Your task to perform on an android device: turn pop-ups off in chrome Image 0: 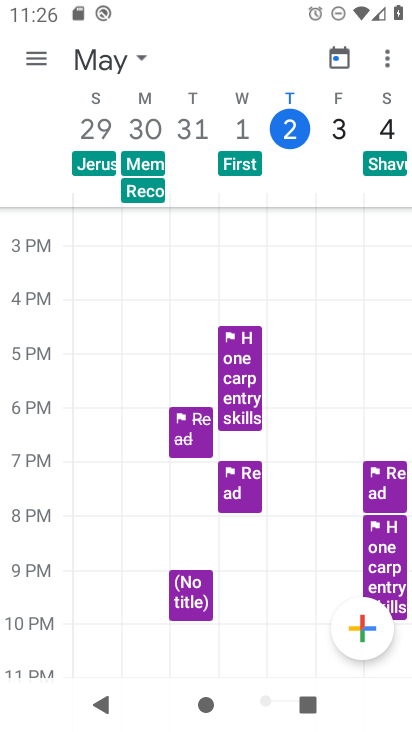
Step 0: press back button
Your task to perform on an android device: turn pop-ups off in chrome Image 1: 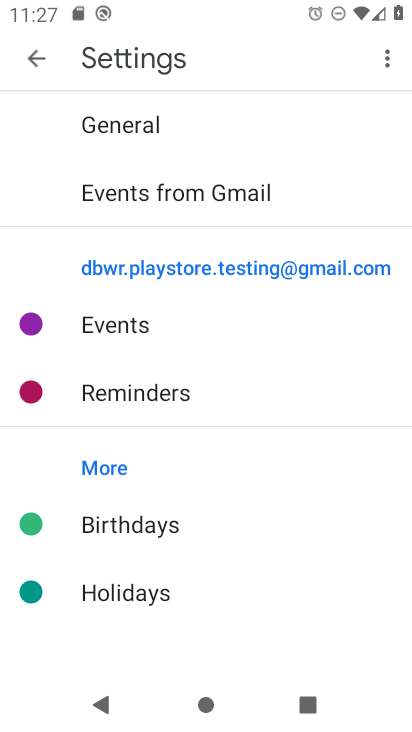
Step 1: press back button
Your task to perform on an android device: turn pop-ups off in chrome Image 2: 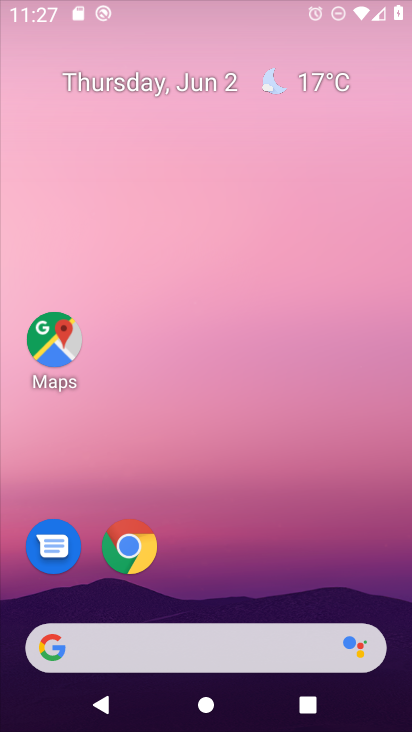
Step 2: press home button
Your task to perform on an android device: turn pop-ups off in chrome Image 3: 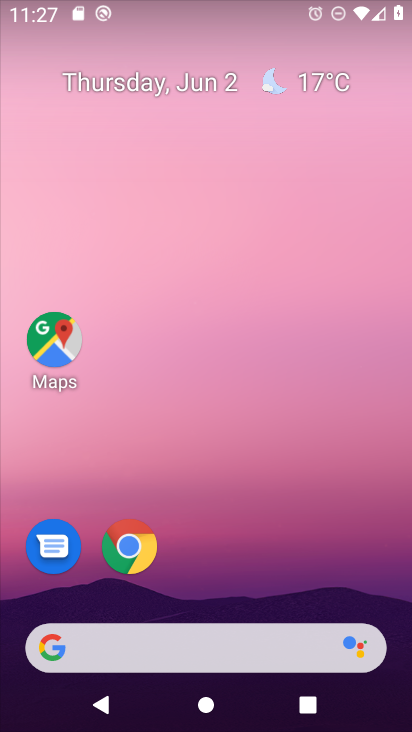
Step 3: drag from (281, 576) to (235, 48)
Your task to perform on an android device: turn pop-ups off in chrome Image 4: 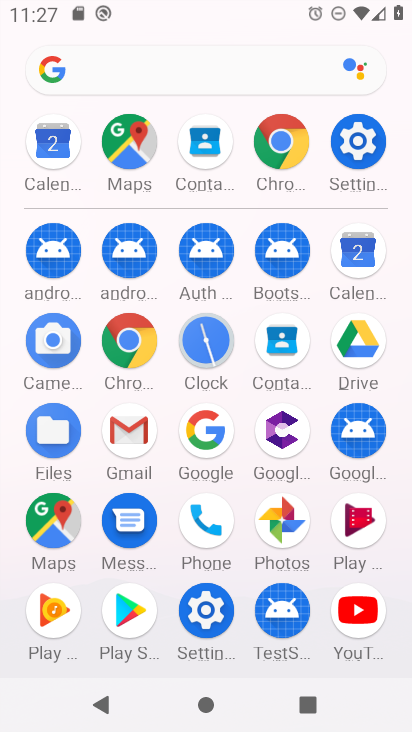
Step 4: click (130, 341)
Your task to perform on an android device: turn pop-ups off in chrome Image 5: 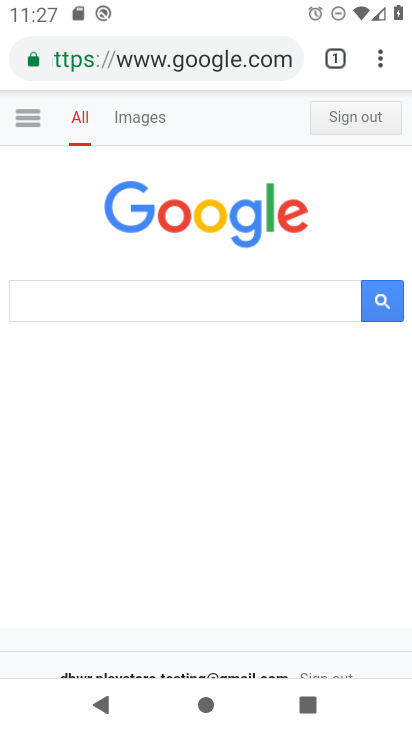
Step 5: drag from (380, 63) to (229, 572)
Your task to perform on an android device: turn pop-ups off in chrome Image 6: 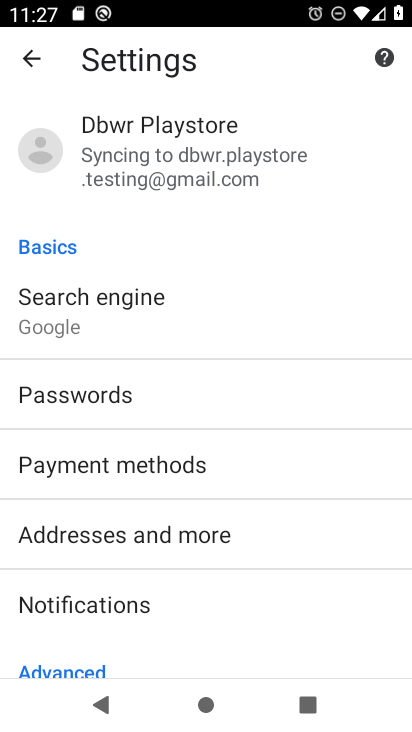
Step 6: drag from (267, 632) to (290, 218)
Your task to perform on an android device: turn pop-ups off in chrome Image 7: 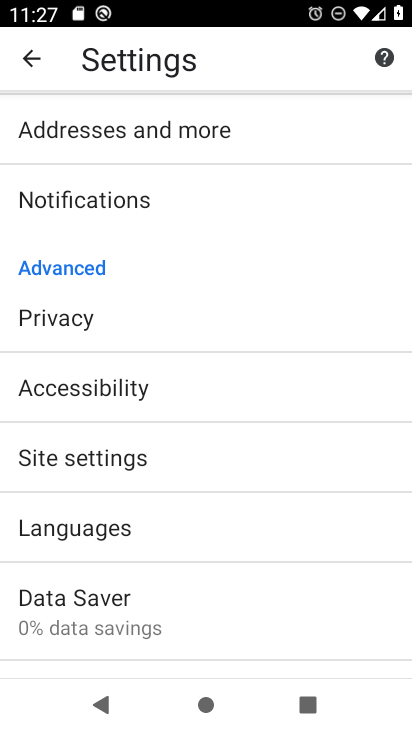
Step 7: drag from (266, 359) to (273, 173)
Your task to perform on an android device: turn pop-ups off in chrome Image 8: 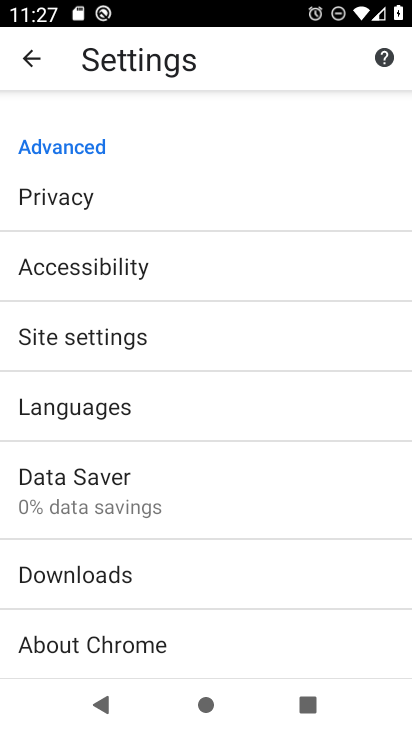
Step 8: click (164, 337)
Your task to perform on an android device: turn pop-ups off in chrome Image 9: 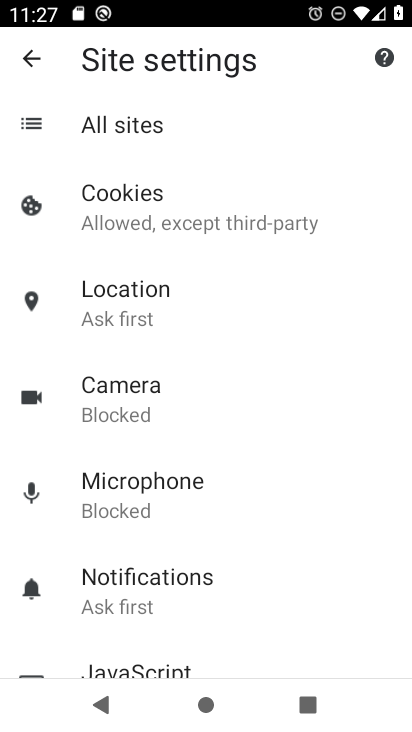
Step 9: drag from (222, 624) to (262, 138)
Your task to perform on an android device: turn pop-ups off in chrome Image 10: 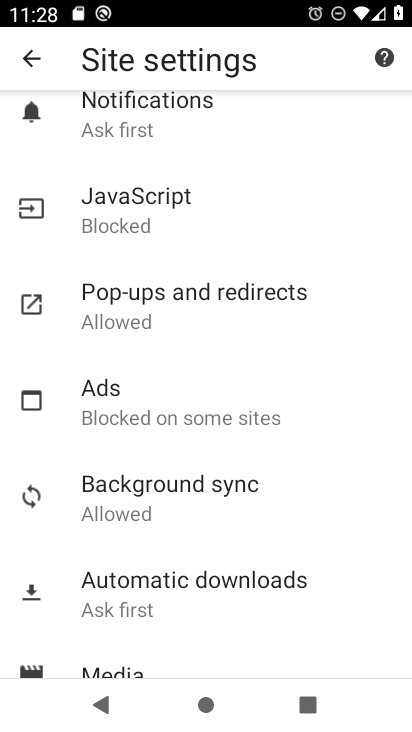
Step 10: drag from (219, 478) to (239, 193)
Your task to perform on an android device: turn pop-ups off in chrome Image 11: 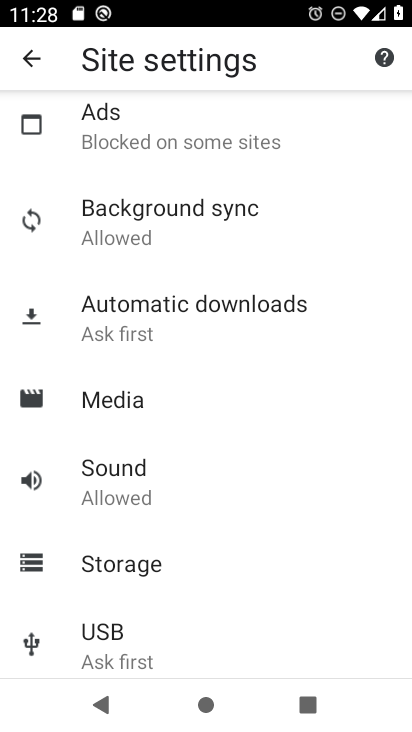
Step 11: drag from (218, 503) to (233, 167)
Your task to perform on an android device: turn pop-ups off in chrome Image 12: 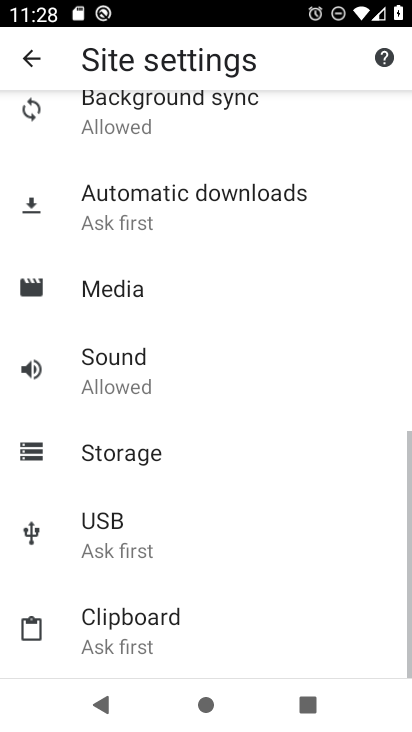
Step 12: drag from (226, 530) to (261, 147)
Your task to perform on an android device: turn pop-ups off in chrome Image 13: 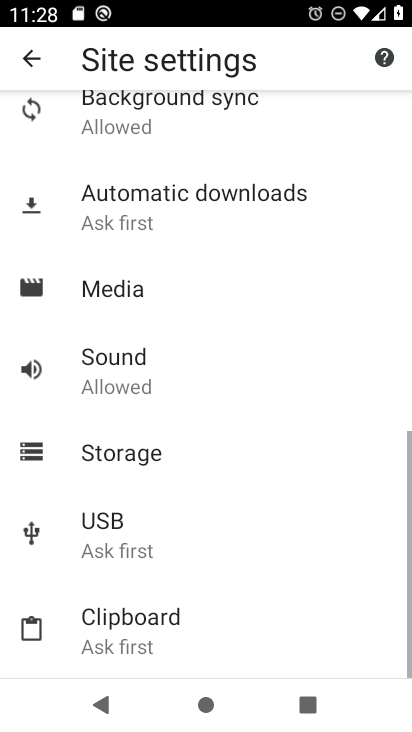
Step 13: drag from (268, 187) to (231, 634)
Your task to perform on an android device: turn pop-ups off in chrome Image 14: 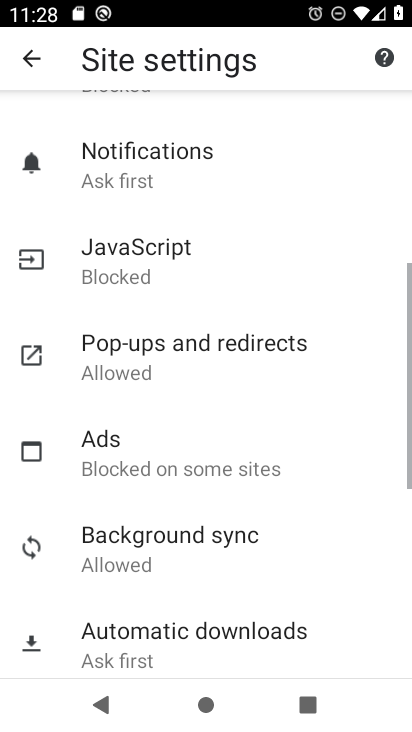
Step 14: drag from (276, 209) to (277, 657)
Your task to perform on an android device: turn pop-ups off in chrome Image 15: 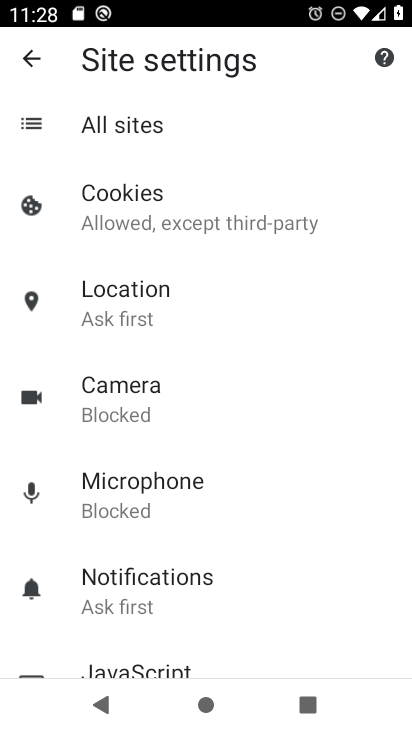
Step 15: drag from (274, 244) to (277, 618)
Your task to perform on an android device: turn pop-ups off in chrome Image 16: 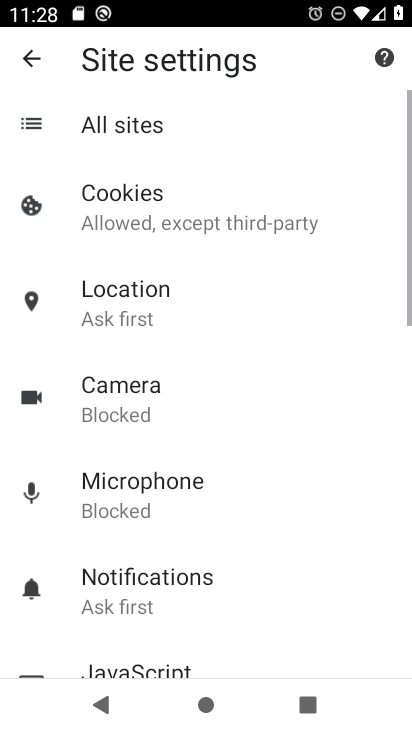
Step 16: drag from (265, 624) to (316, 230)
Your task to perform on an android device: turn pop-ups off in chrome Image 17: 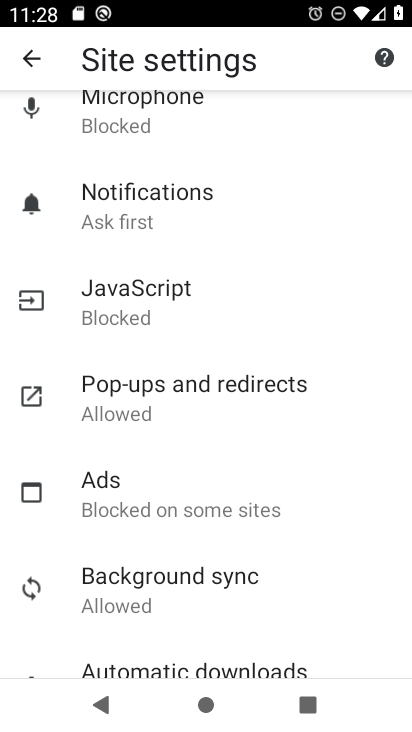
Step 17: click (164, 411)
Your task to perform on an android device: turn pop-ups off in chrome Image 18: 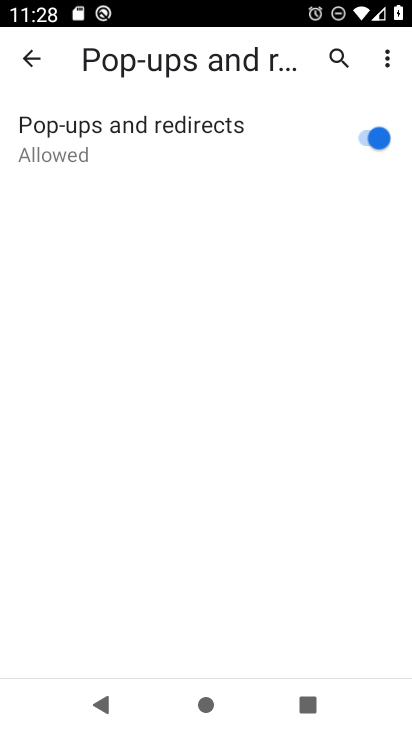
Step 18: click (365, 132)
Your task to perform on an android device: turn pop-ups off in chrome Image 19: 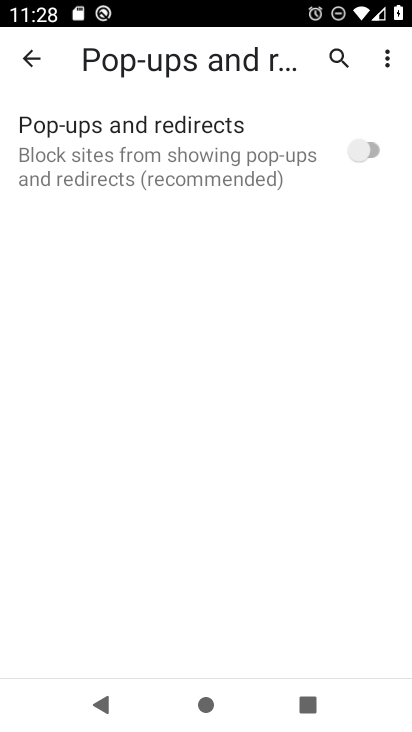
Step 19: task complete